Your task to perform on an android device: turn smart compose on in the gmail app Image 0: 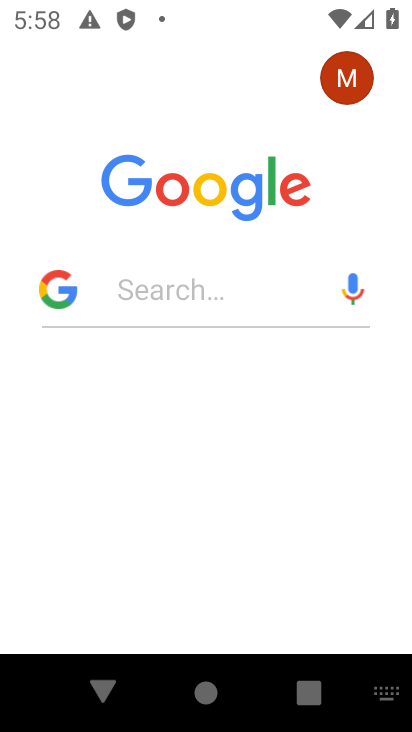
Step 0: press back button
Your task to perform on an android device: turn smart compose on in the gmail app Image 1: 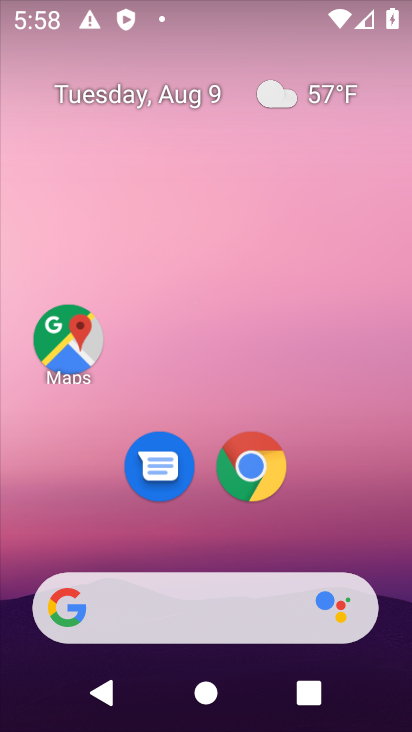
Step 1: drag from (201, 461) to (240, 148)
Your task to perform on an android device: turn smart compose on in the gmail app Image 2: 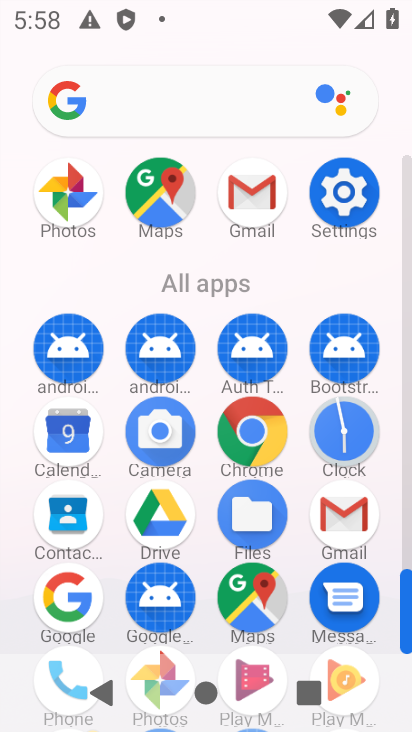
Step 2: click (244, 192)
Your task to perform on an android device: turn smart compose on in the gmail app Image 3: 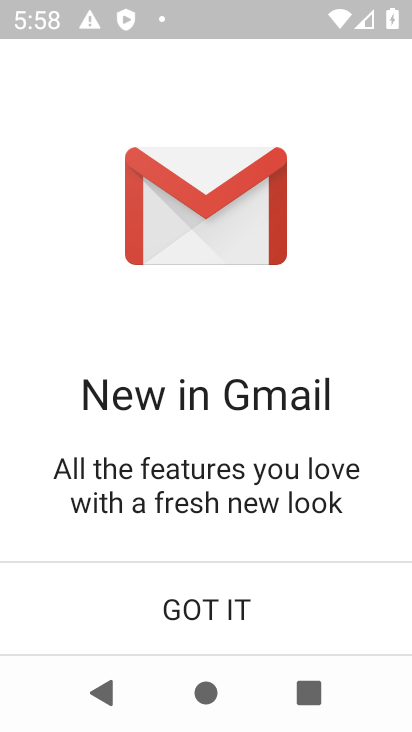
Step 3: click (205, 602)
Your task to perform on an android device: turn smart compose on in the gmail app Image 4: 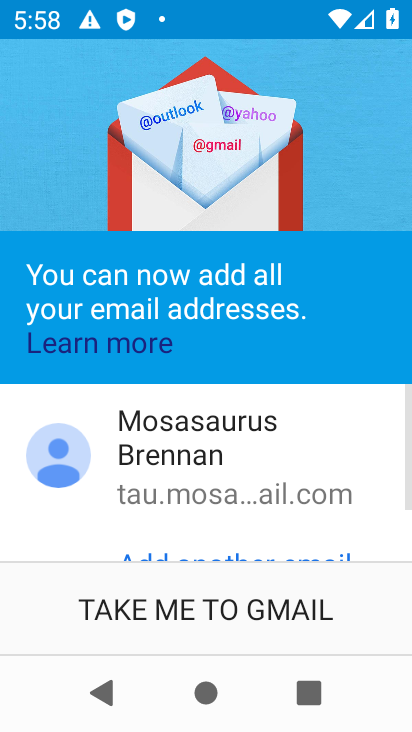
Step 4: click (205, 602)
Your task to perform on an android device: turn smart compose on in the gmail app Image 5: 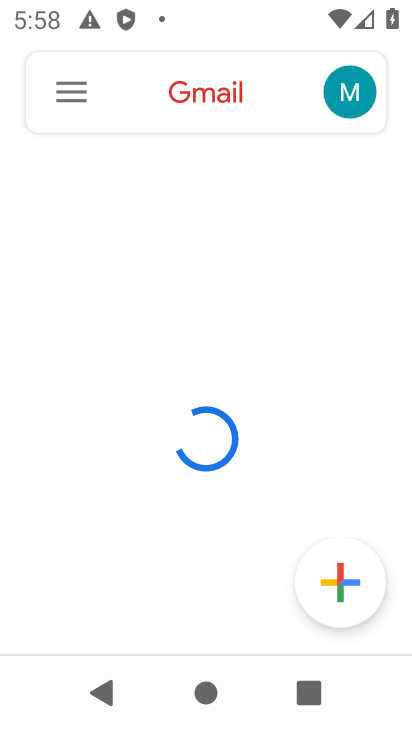
Step 5: click (76, 85)
Your task to perform on an android device: turn smart compose on in the gmail app Image 6: 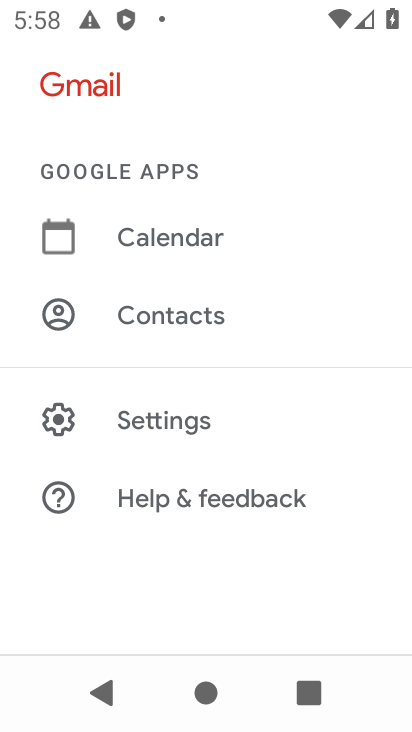
Step 6: click (134, 431)
Your task to perform on an android device: turn smart compose on in the gmail app Image 7: 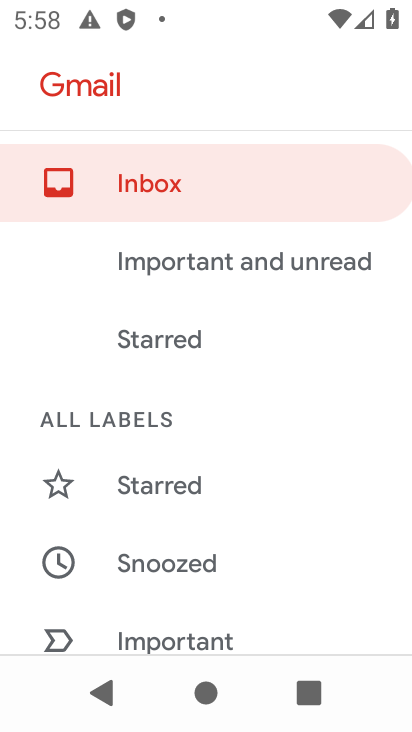
Step 7: drag from (245, 545) to (245, 162)
Your task to perform on an android device: turn smart compose on in the gmail app Image 8: 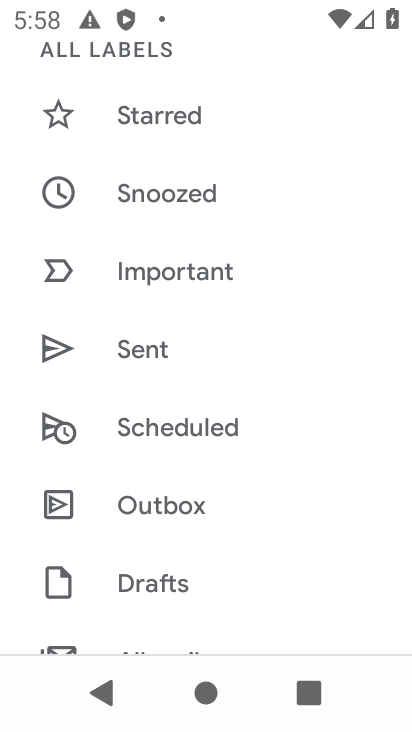
Step 8: drag from (167, 529) to (183, 188)
Your task to perform on an android device: turn smart compose on in the gmail app Image 9: 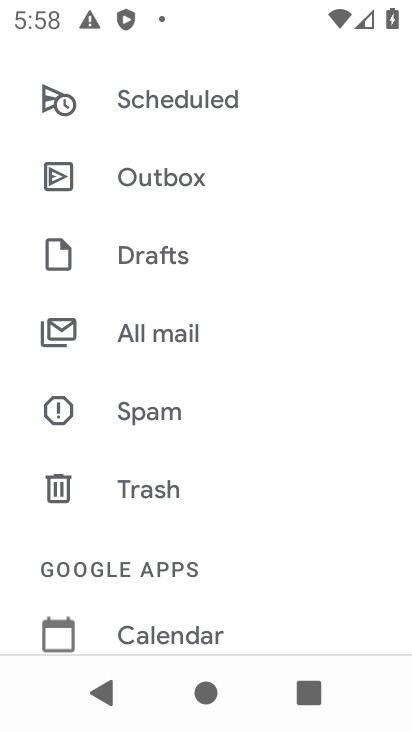
Step 9: drag from (200, 452) to (207, 72)
Your task to perform on an android device: turn smart compose on in the gmail app Image 10: 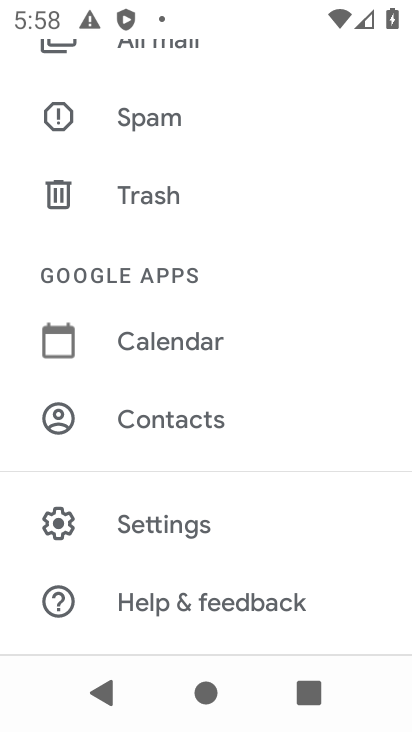
Step 10: click (155, 530)
Your task to perform on an android device: turn smart compose on in the gmail app Image 11: 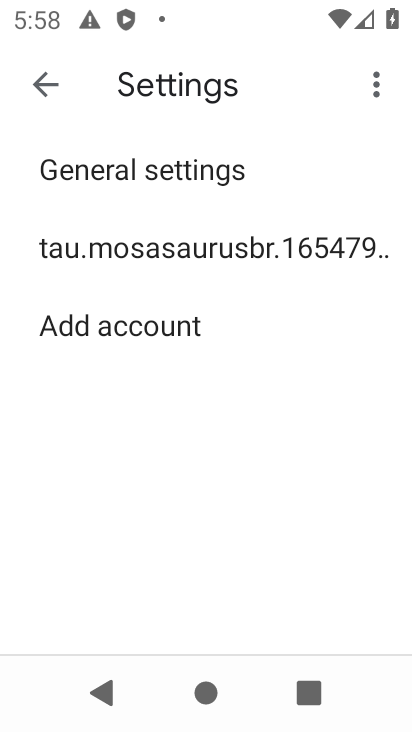
Step 11: click (224, 259)
Your task to perform on an android device: turn smart compose on in the gmail app Image 12: 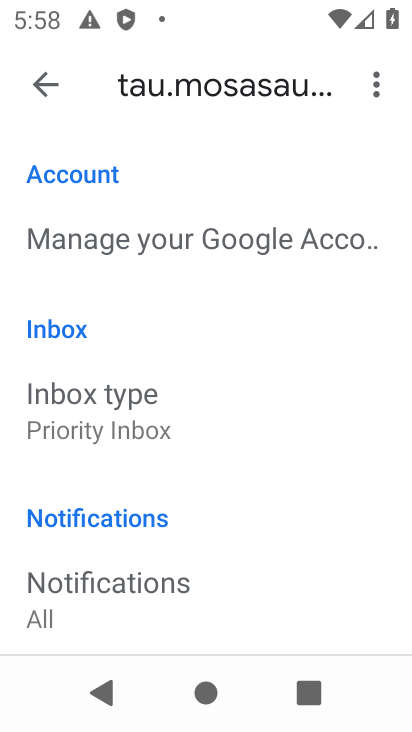
Step 12: task complete